Your task to perform on an android device: Open Google Chrome Image 0: 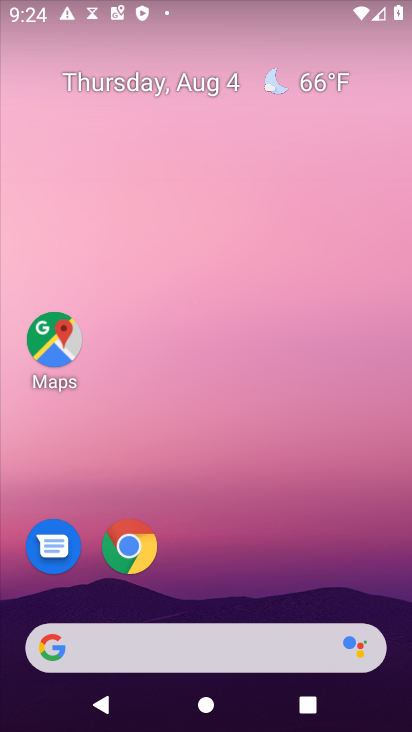
Step 0: press home button
Your task to perform on an android device: Open Google Chrome Image 1: 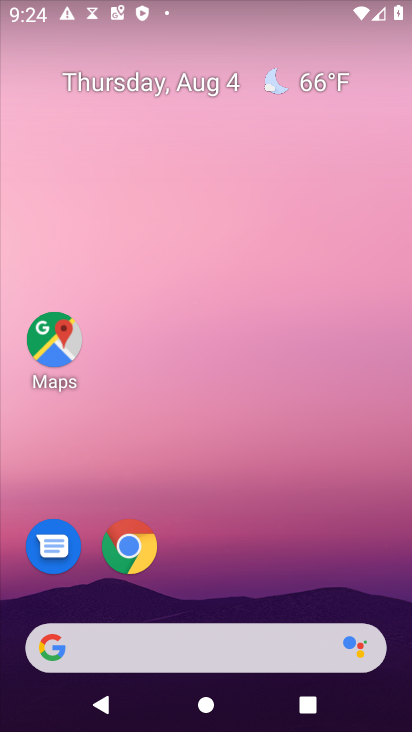
Step 1: drag from (274, 536) to (303, 97)
Your task to perform on an android device: Open Google Chrome Image 2: 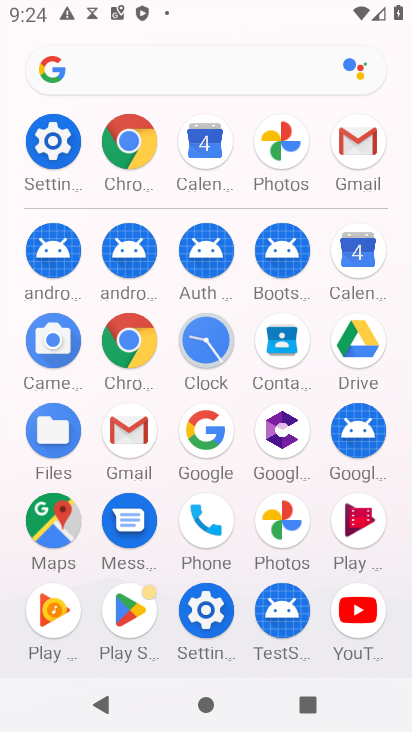
Step 2: click (134, 139)
Your task to perform on an android device: Open Google Chrome Image 3: 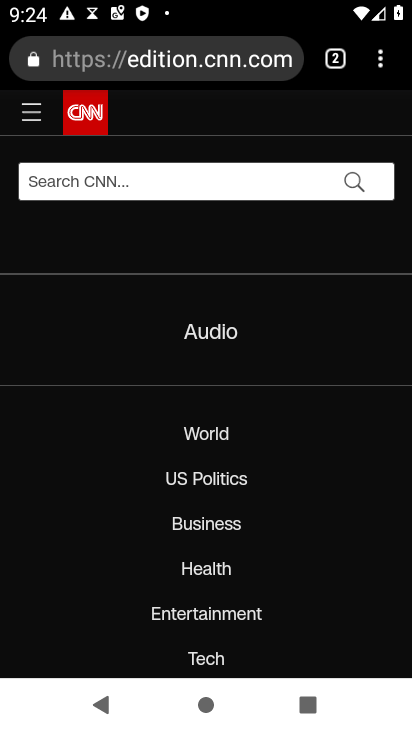
Step 3: click (337, 53)
Your task to perform on an android device: Open Google Chrome Image 4: 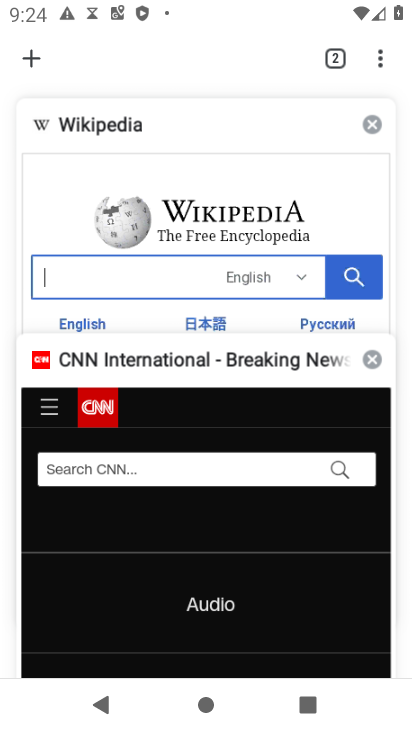
Step 4: click (35, 59)
Your task to perform on an android device: Open Google Chrome Image 5: 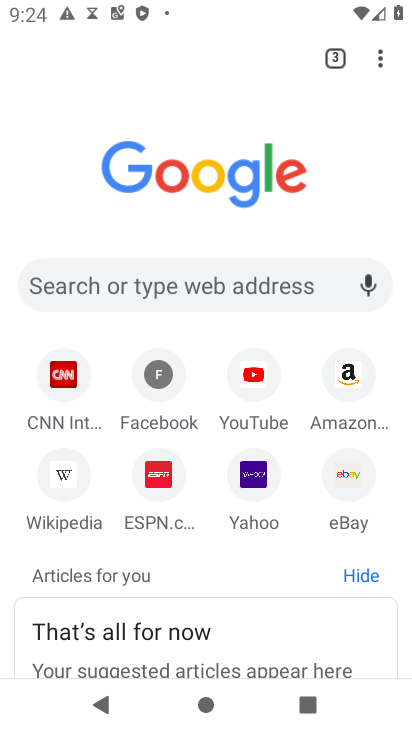
Step 5: task complete